Your task to perform on an android device: find snoozed emails in the gmail app Image 0: 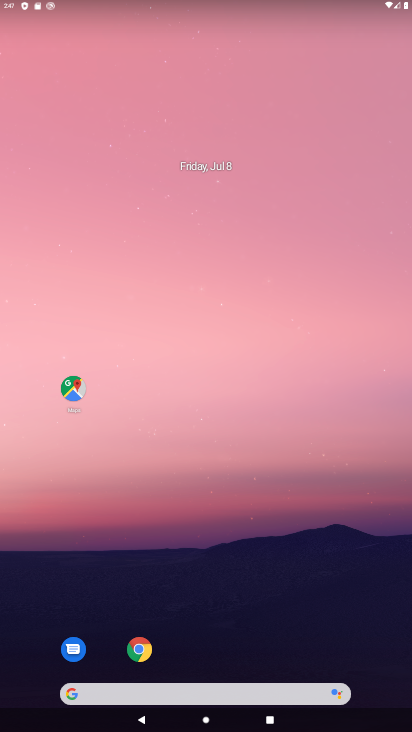
Step 0: drag from (203, 686) to (204, 146)
Your task to perform on an android device: find snoozed emails in the gmail app Image 1: 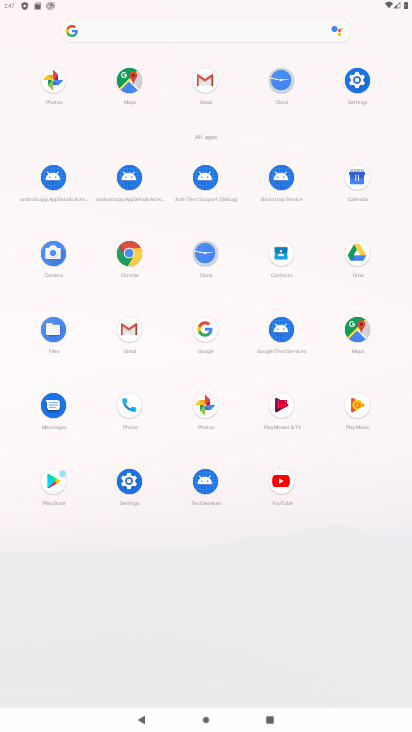
Step 1: click (129, 338)
Your task to perform on an android device: find snoozed emails in the gmail app Image 2: 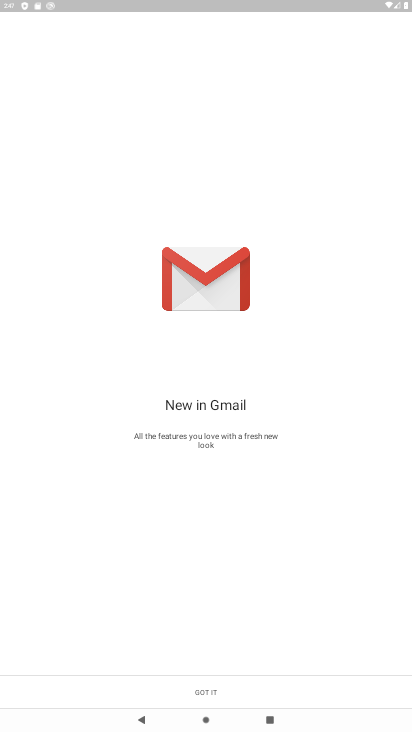
Step 2: click (217, 696)
Your task to perform on an android device: find snoozed emails in the gmail app Image 3: 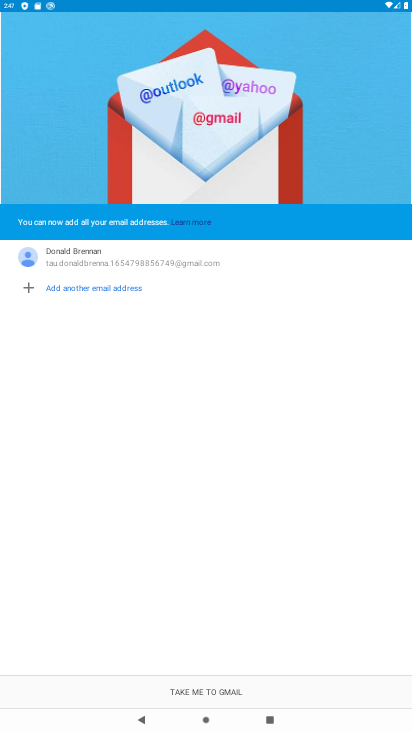
Step 3: click (217, 696)
Your task to perform on an android device: find snoozed emails in the gmail app Image 4: 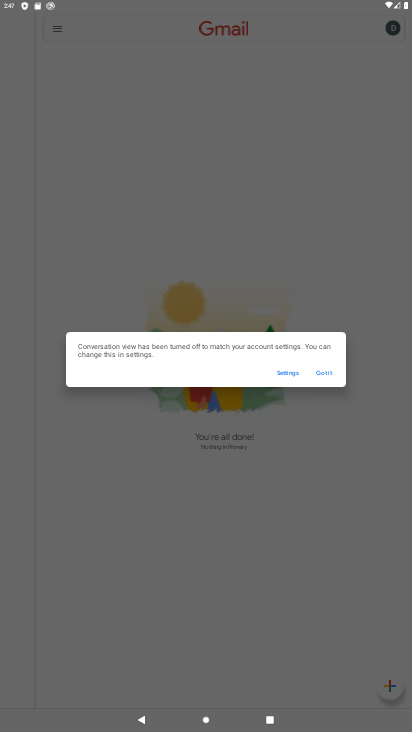
Step 4: click (322, 372)
Your task to perform on an android device: find snoozed emails in the gmail app Image 5: 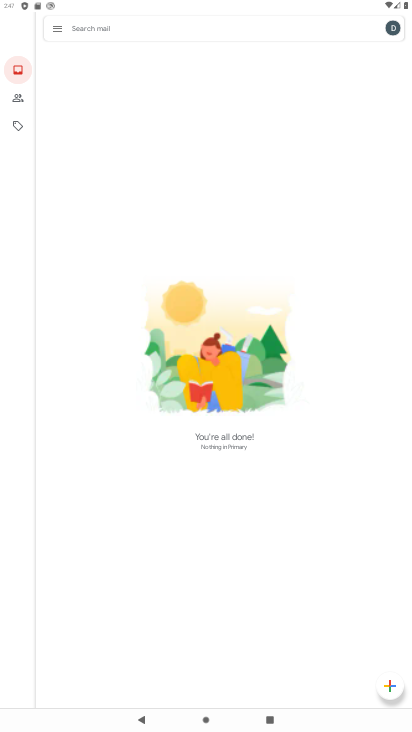
Step 5: click (48, 27)
Your task to perform on an android device: find snoozed emails in the gmail app Image 6: 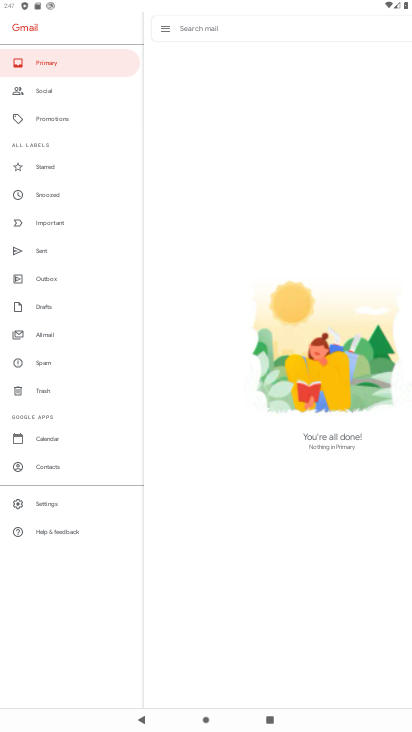
Step 6: click (53, 193)
Your task to perform on an android device: find snoozed emails in the gmail app Image 7: 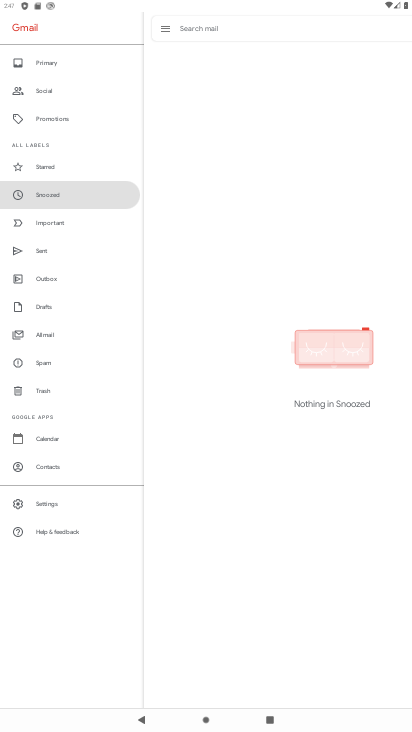
Step 7: task complete